Your task to perform on an android device: change alarm snooze length Image 0: 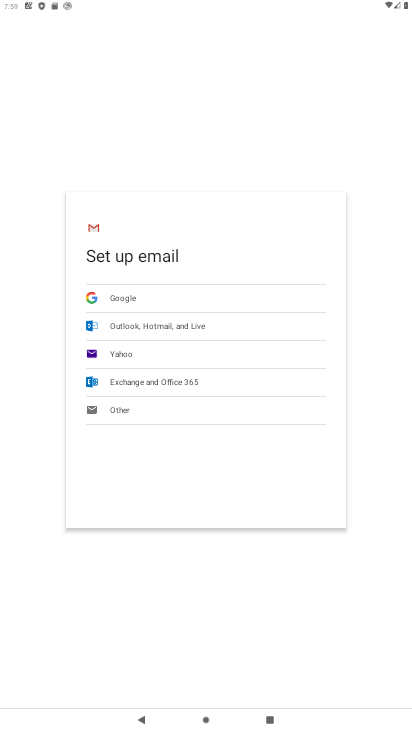
Step 0: press back button
Your task to perform on an android device: change alarm snooze length Image 1: 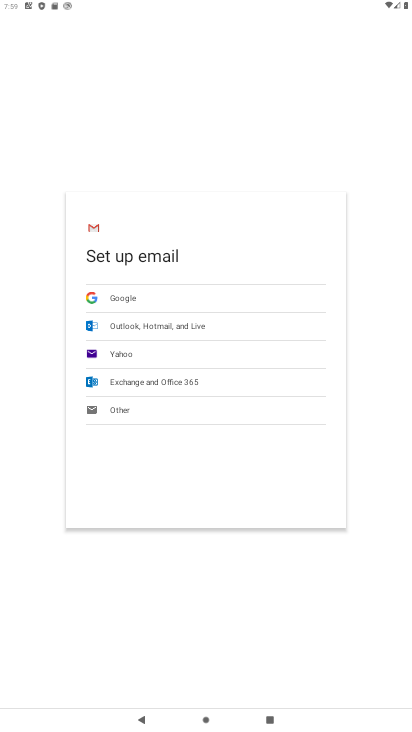
Step 1: press back button
Your task to perform on an android device: change alarm snooze length Image 2: 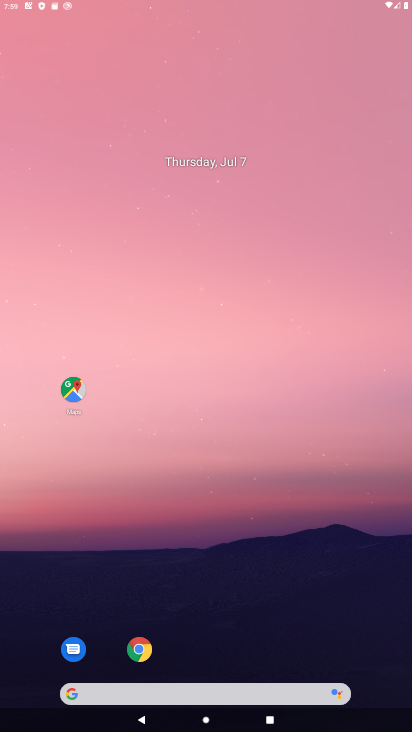
Step 2: press back button
Your task to perform on an android device: change alarm snooze length Image 3: 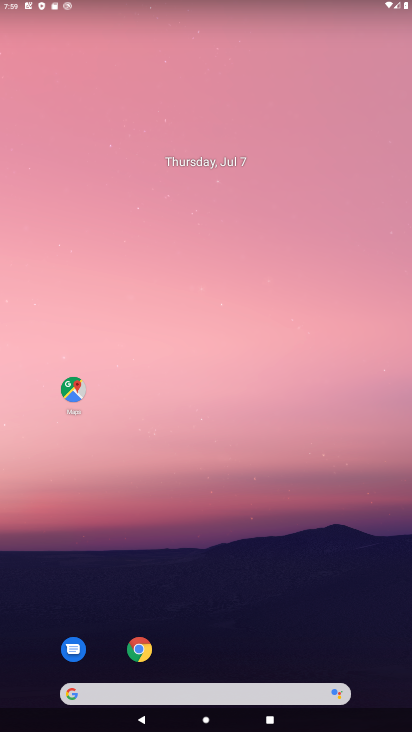
Step 3: drag from (243, 545) to (238, 207)
Your task to perform on an android device: change alarm snooze length Image 4: 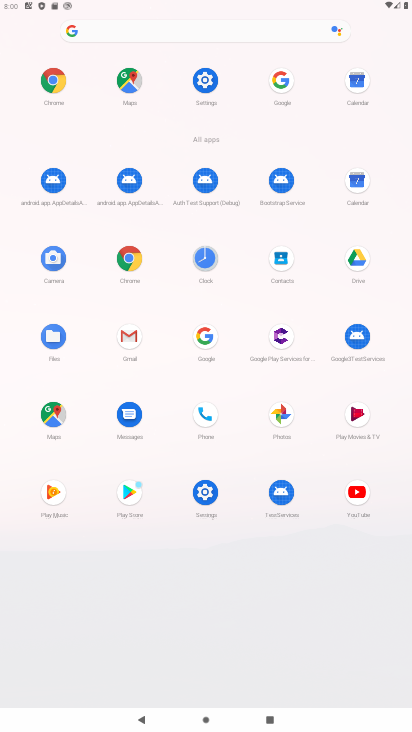
Step 4: click (205, 261)
Your task to perform on an android device: change alarm snooze length Image 5: 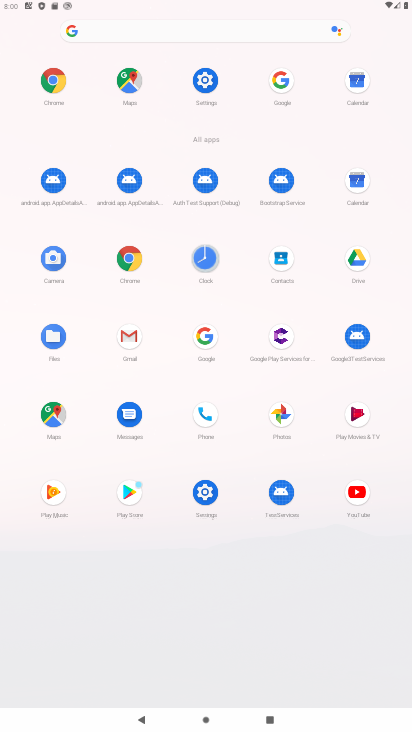
Step 5: click (205, 261)
Your task to perform on an android device: change alarm snooze length Image 6: 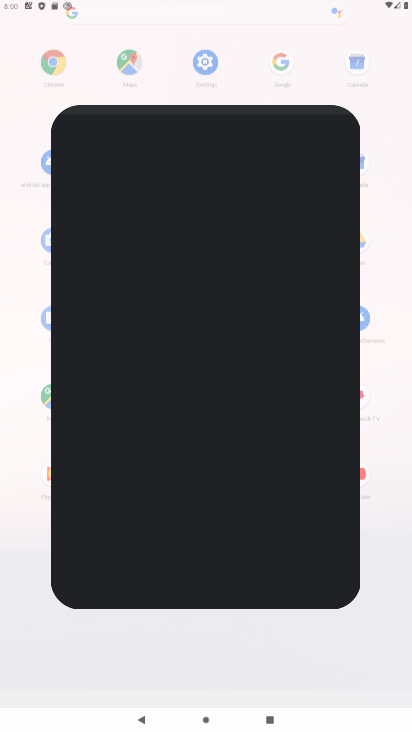
Step 6: click (204, 260)
Your task to perform on an android device: change alarm snooze length Image 7: 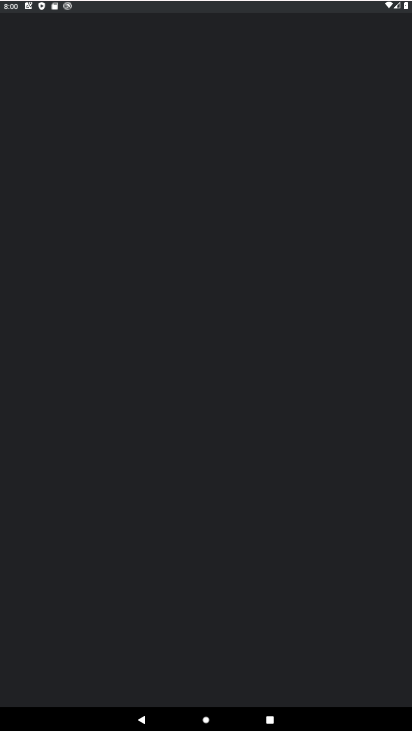
Step 7: click (207, 259)
Your task to perform on an android device: change alarm snooze length Image 8: 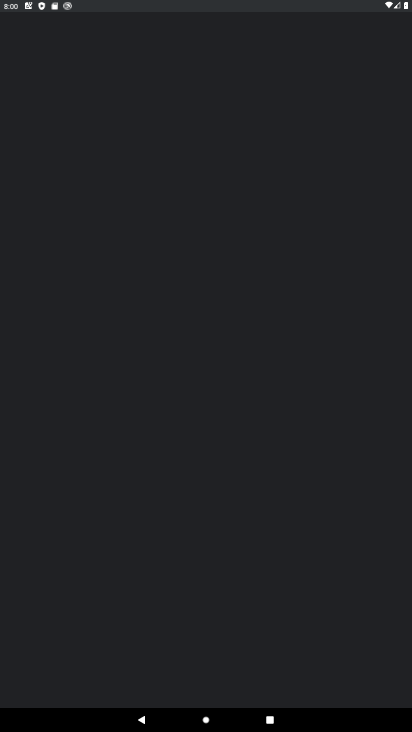
Step 8: click (207, 259)
Your task to perform on an android device: change alarm snooze length Image 9: 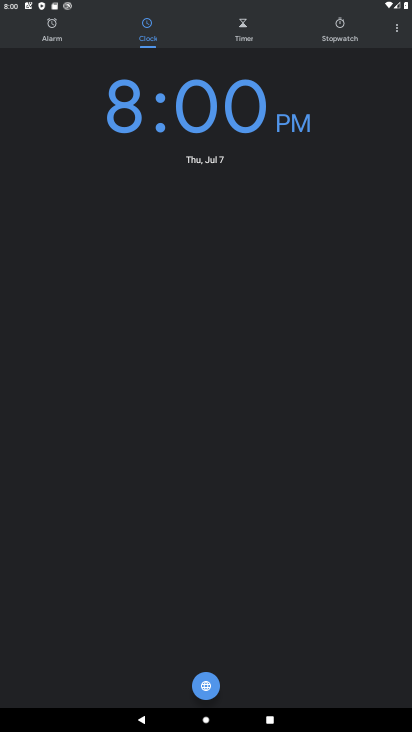
Step 9: click (394, 40)
Your task to perform on an android device: change alarm snooze length Image 10: 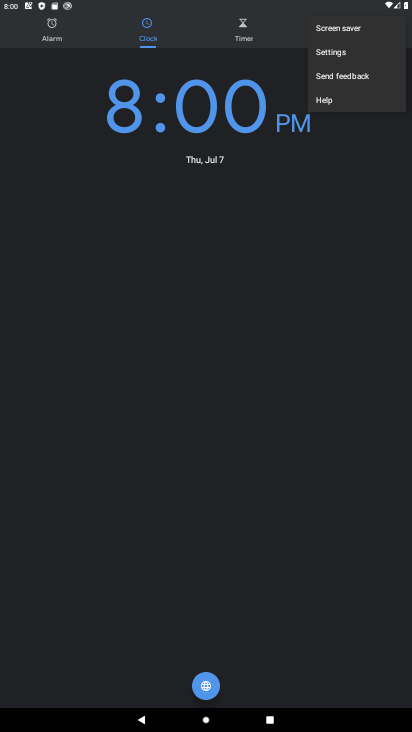
Step 10: click (335, 57)
Your task to perform on an android device: change alarm snooze length Image 11: 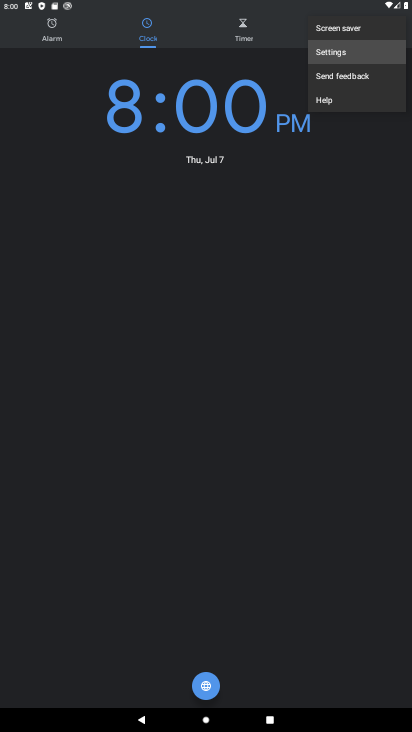
Step 11: click (341, 46)
Your task to perform on an android device: change alarm snooze length Image 12: 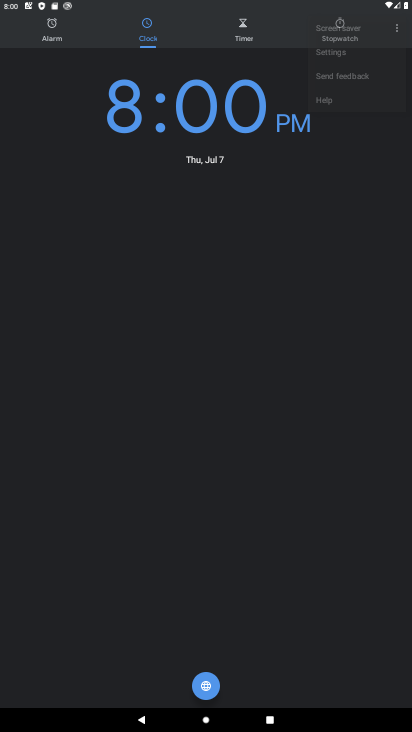
Step 12: click (340, 50)
Your task to perform on an android device: change alarm snooze length Image 13: 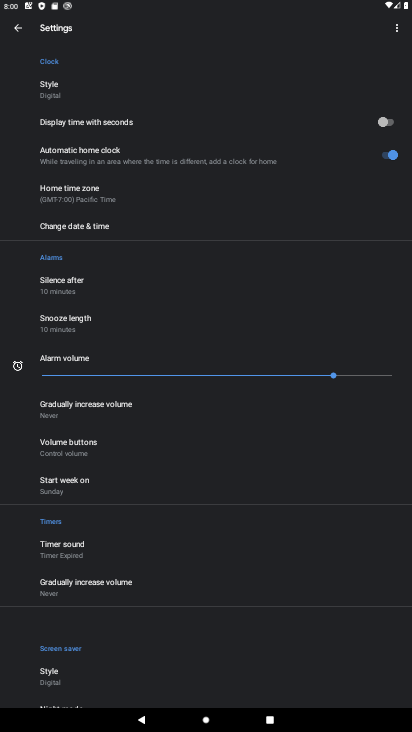
Step 13: click (338, 51)
Your task to perform on an android device: change alarm snooze length Image 14: 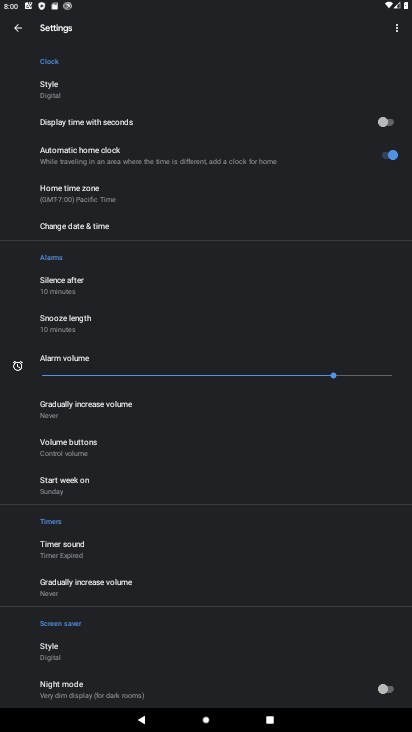
Step 14: click (68, 316)
Your task to perform on an android device: change alarm snooze length Image 15: 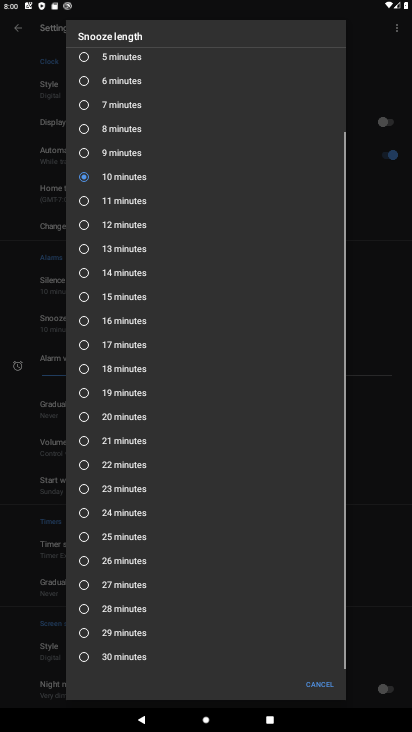
Step 15: click (68, 325)
Your task to perform on an android device: change alarm snooze length Image 16: 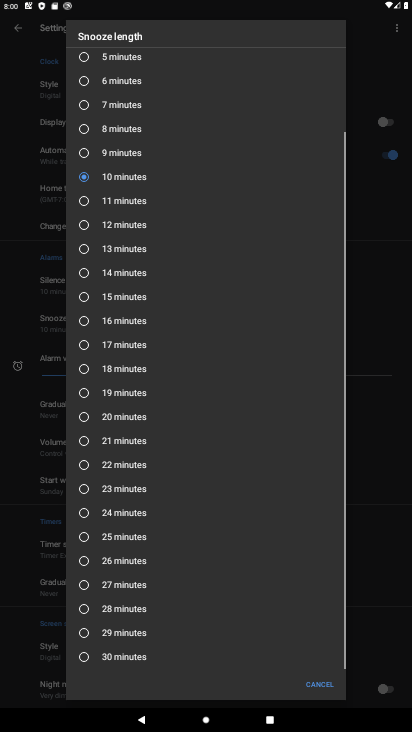
Step 16: click (68, 326)
Your task to perform on an android device: change alarm snooze length Image 17: 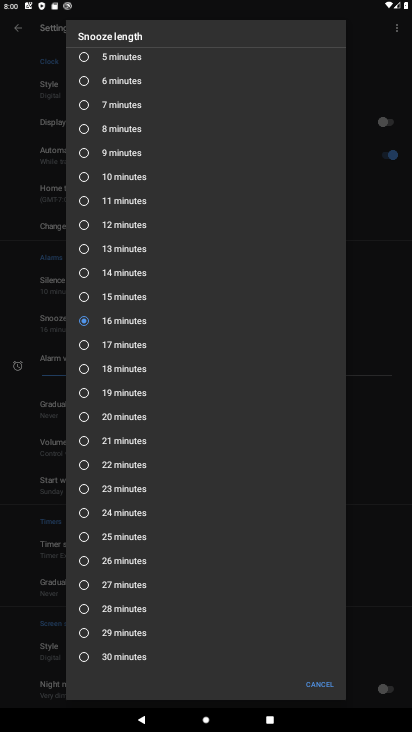
Step 17: click (90, 155)
Your task to perform on an android device: change alarm snooze length Image 18: 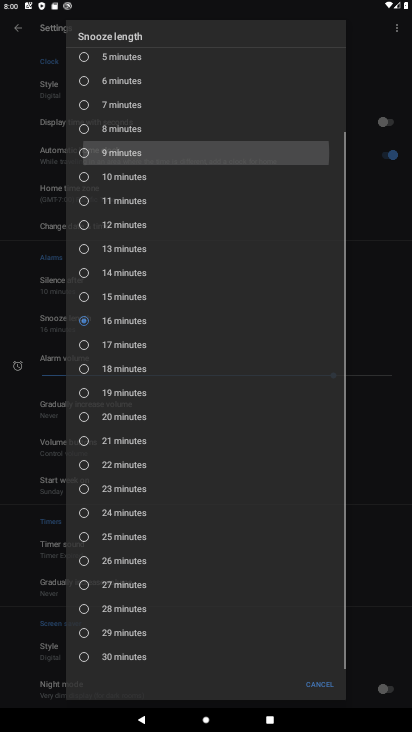
Step 18: click (88, 149)
Your task to perform on an android device: change alarm snooze length Image 19: 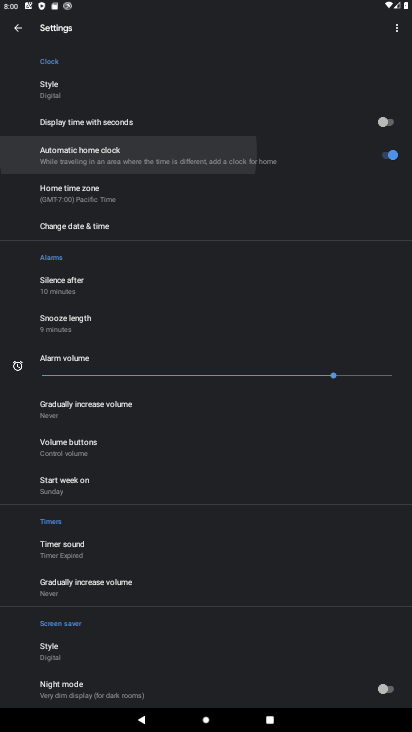
Step 19: click (88, 149)
Your task to perform on an android device: change alarm snooze length Image 20: 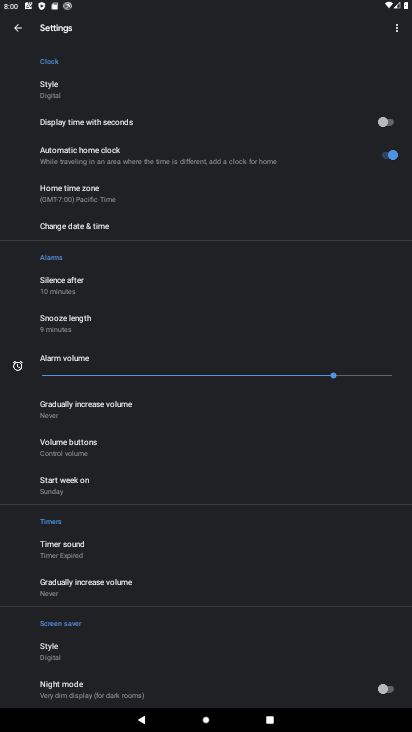
Step 20: task complete